Your task to perform on an android device: uninstall "Facebook Lite" Image 0: 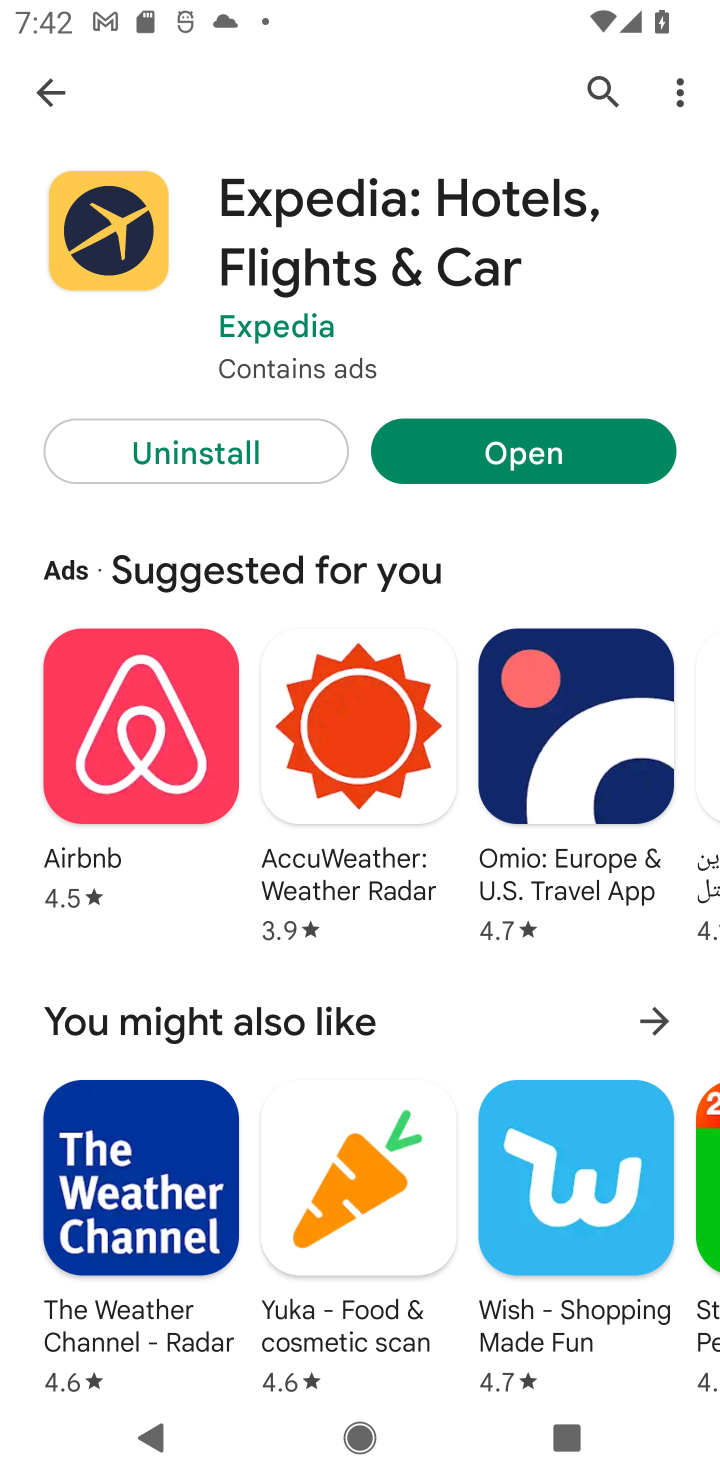
Step 0: click (616, 104)
Your task to perform on an android device: uninstall "Facebook Lite" Image 1: 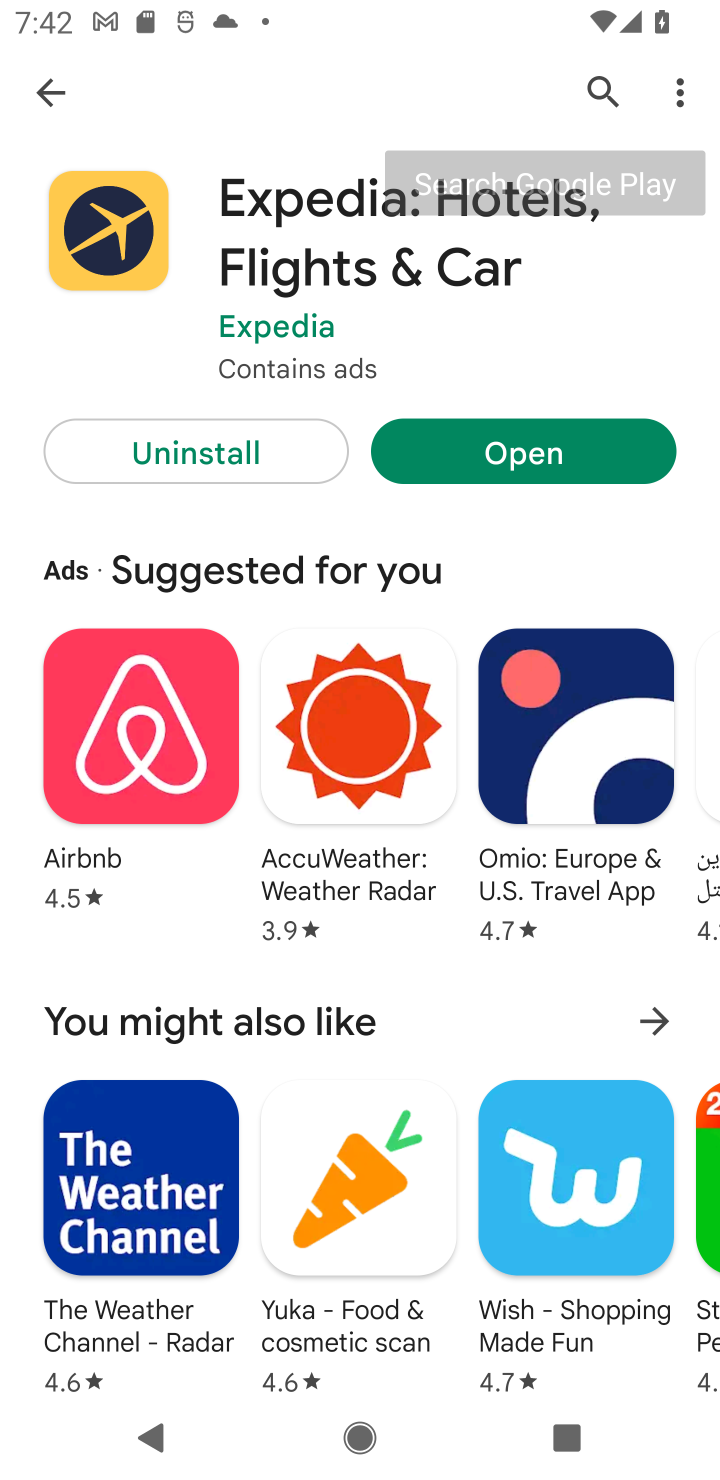
Step 1: click (594, 93)
Your task to perform on an android device: uninstall "Facebook Lite" Image 2: 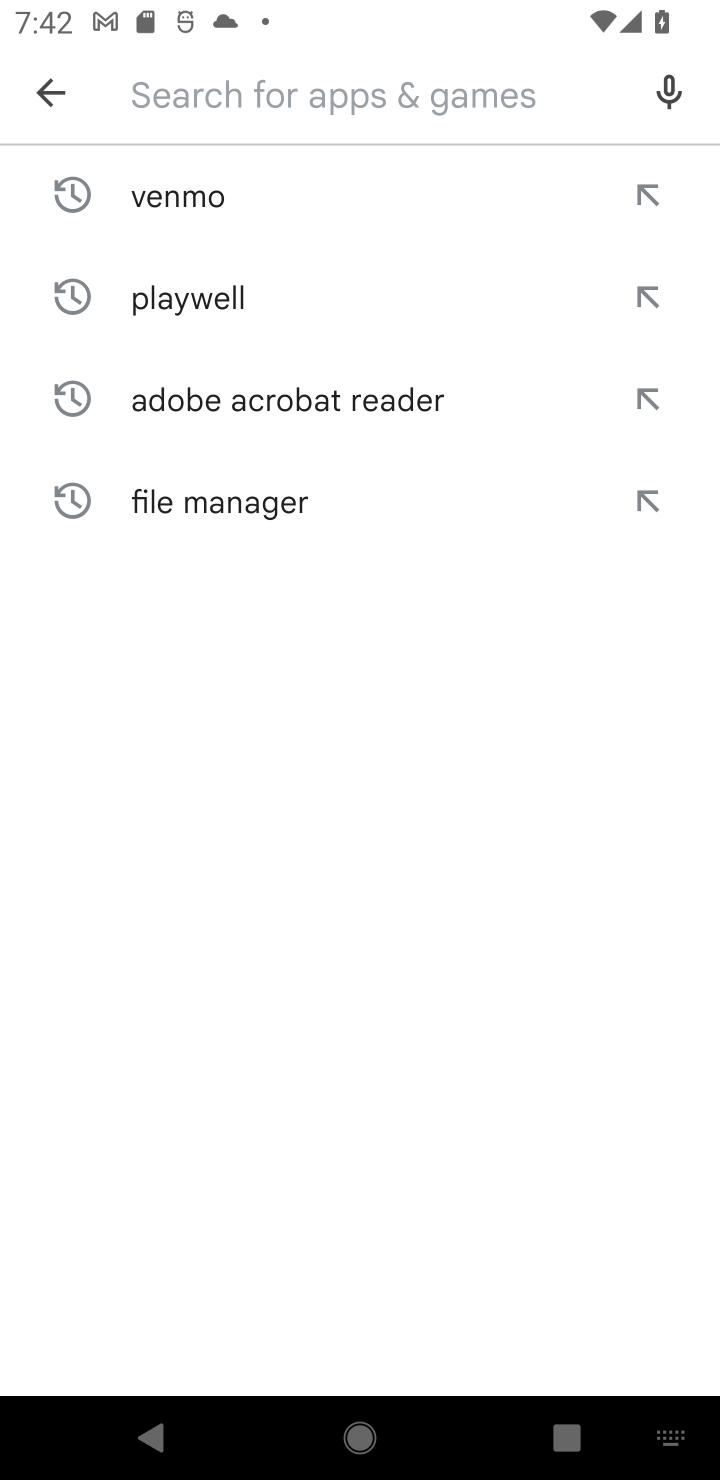
Step 2: type "Facebook Lite"
Your task to perform on an android device: uninstall "Facebook Lite" Image 3: 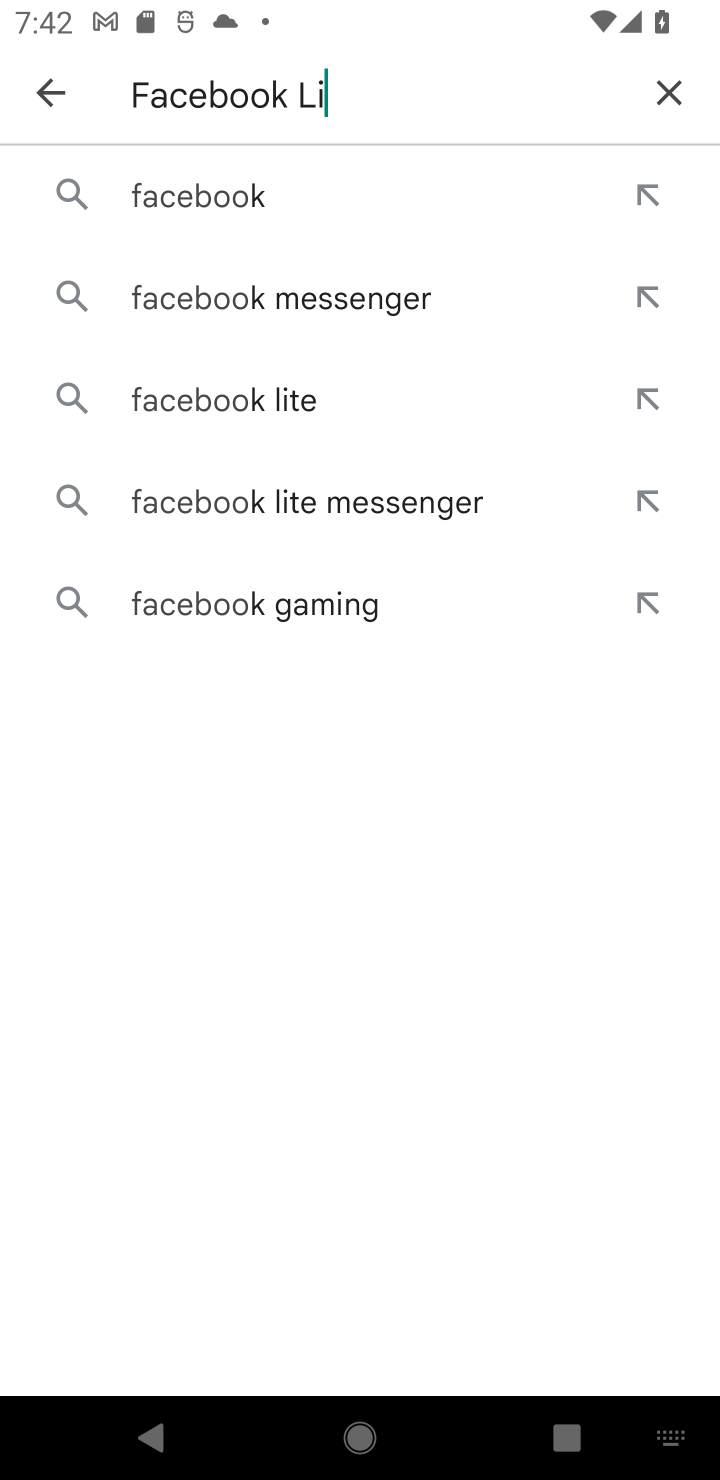
Step 3: type ""
Your task to perform on an android device: uninstall "Facebook Lite" Image 4: 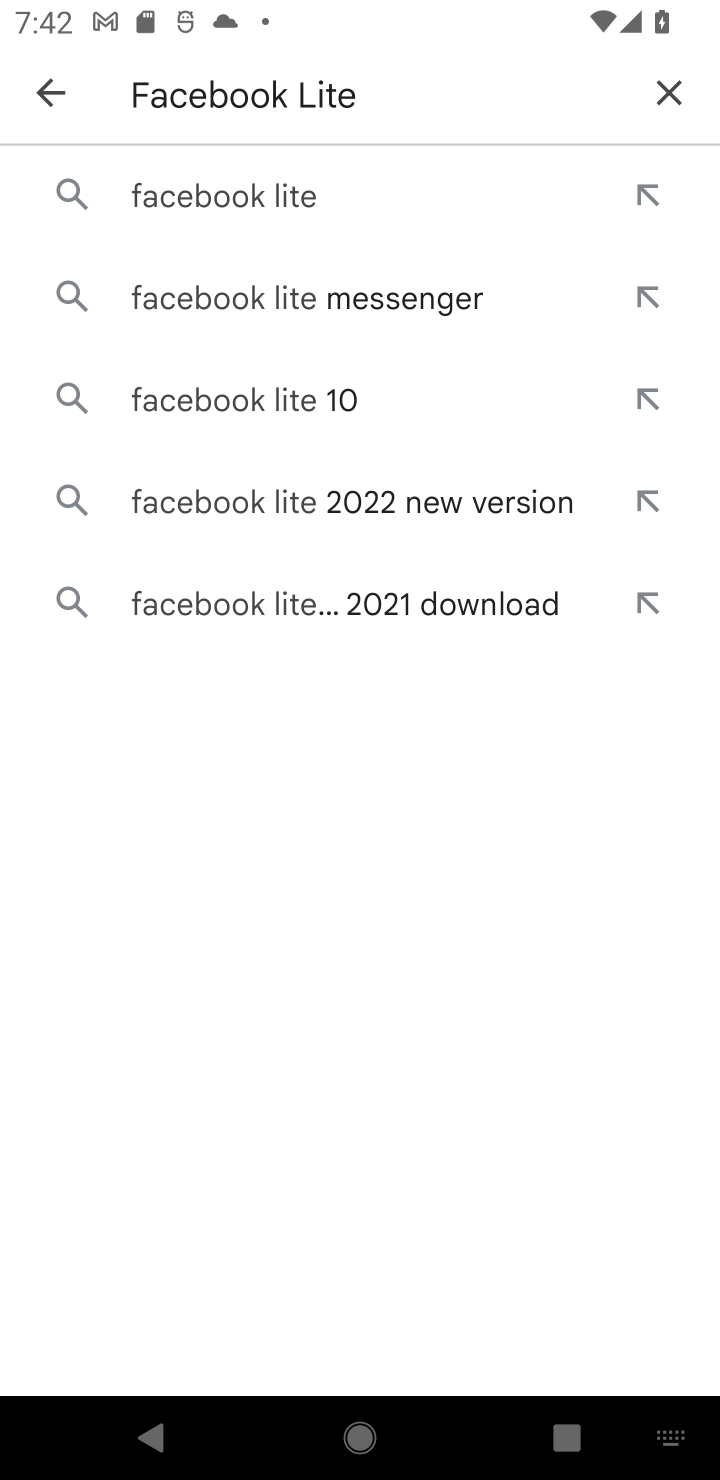
Step 4: click (316, 216)
Your task to perform on an android device: uninstall "Facebook Lite" Image 5: 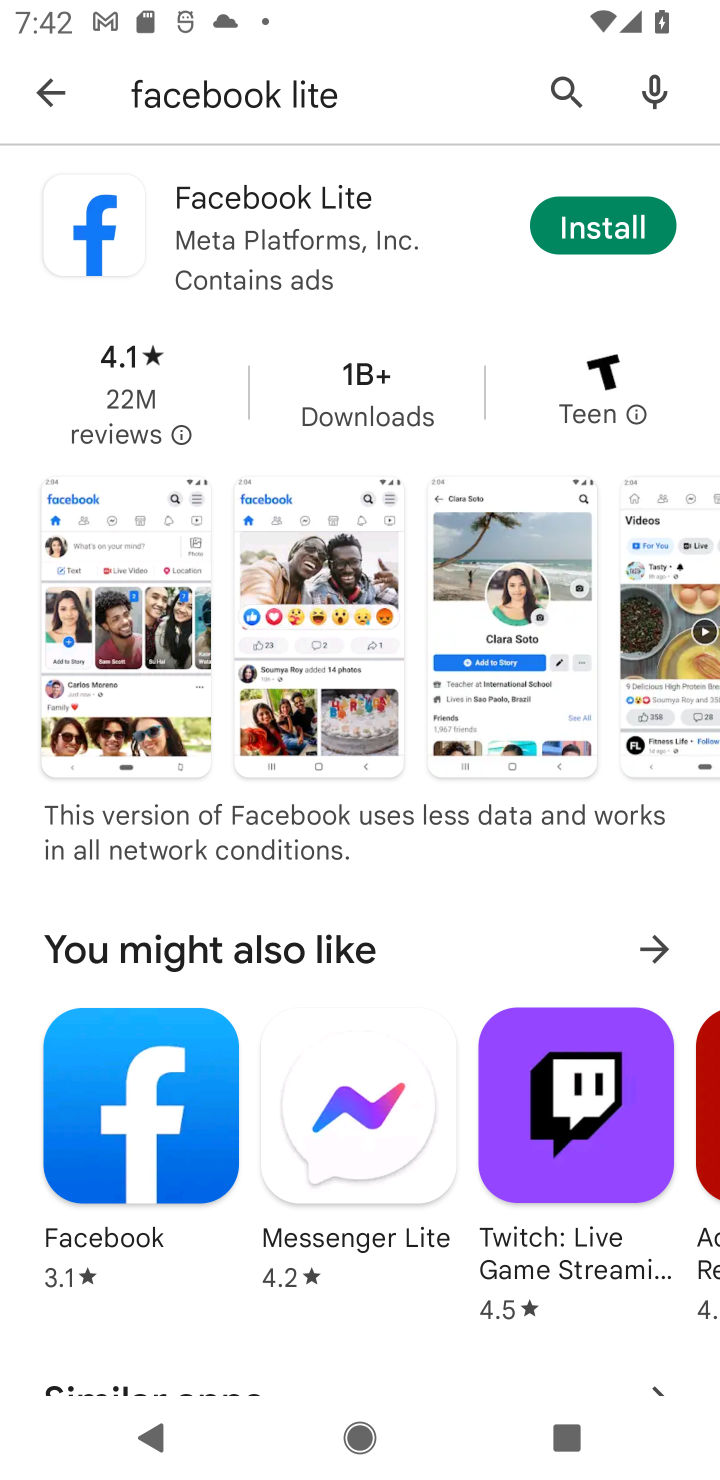
Step 5: task complete